Your task to perform on an android device: Clear the shopping cart on costco.com. Add logitech g502 to the cart on costco.com, then select checkout. Image 0: 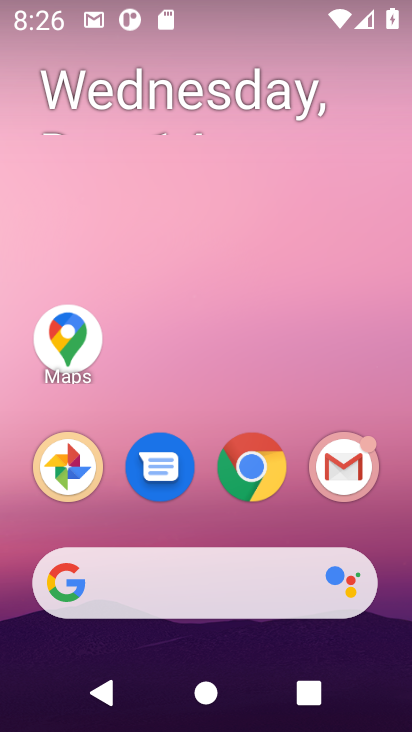
Step 0: click (244, 466)
Your task to perform on an android device: Clear the shopping cart on costco.com. Add logitech g502 to the cart on costco.com, then select checkout. Image 1: 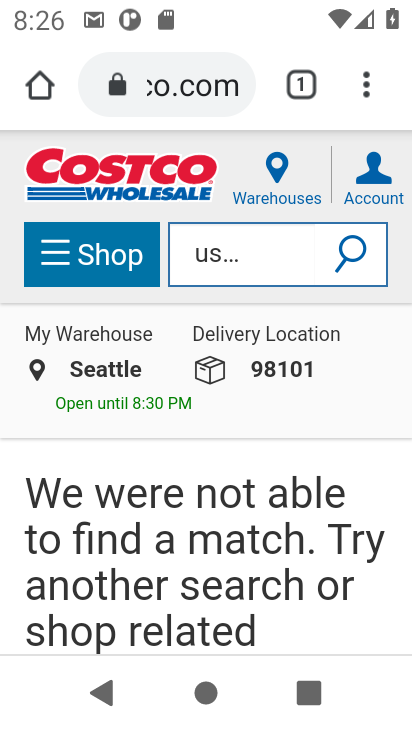
Step 1: click (197, 248)
Your task to perform on an android device: Clear the shopping cart on costco.com. Add logitech g502 to the cart on costco.com, then select checkout. Image 2: 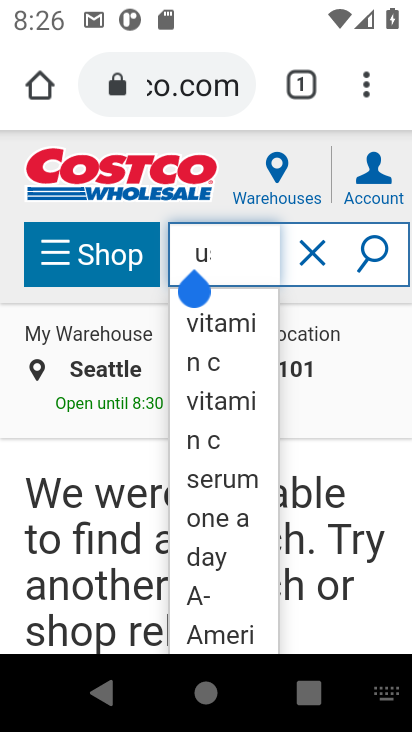
Step 2: click (313, 242)
Your task to perform on an android device: Clear the shopping cart on costco.com. Add logitech g502 to the cart on costco.com, then select checkout. Image 3: 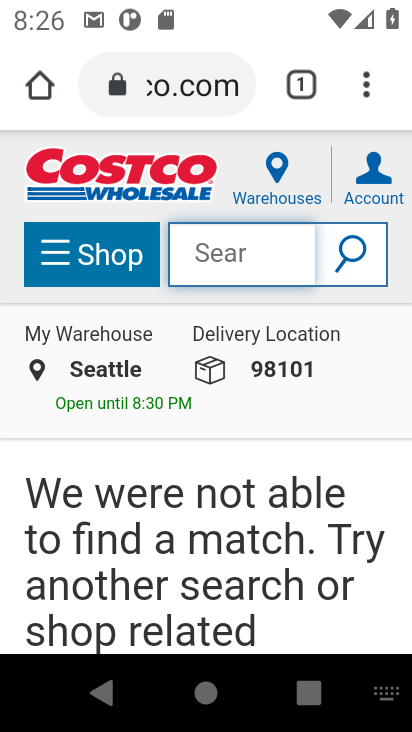
Step 3: type "logitech g502"
Your task to perform on an android device: Clear the shopping cart on costco.com. Add logitech g502 to the cart on costco.com, then select checkout. Image 4: 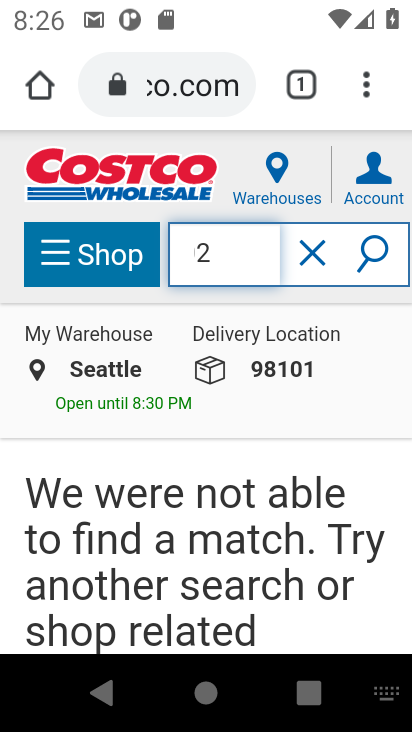
Step 4: click (387, 247)
Your task to perform on an android device: Clear the shopping cart on costco.com. Add logitech g502 to the cart on costco.com, then select checkout. Image 5: 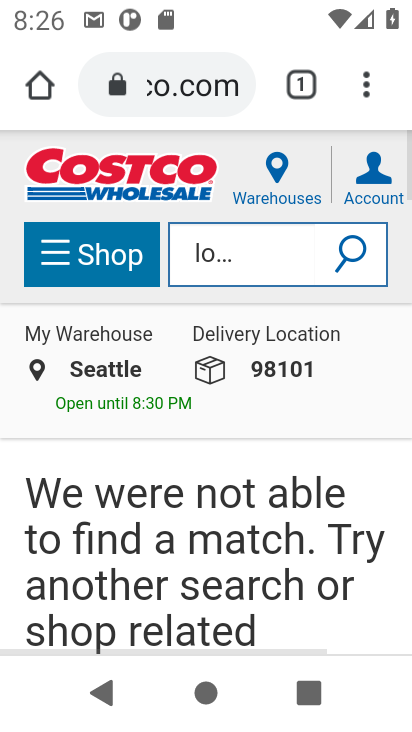
Step 5: task complete